Your task to perform on an android device: Search for seafood restaurants on Google Maps Image 0: 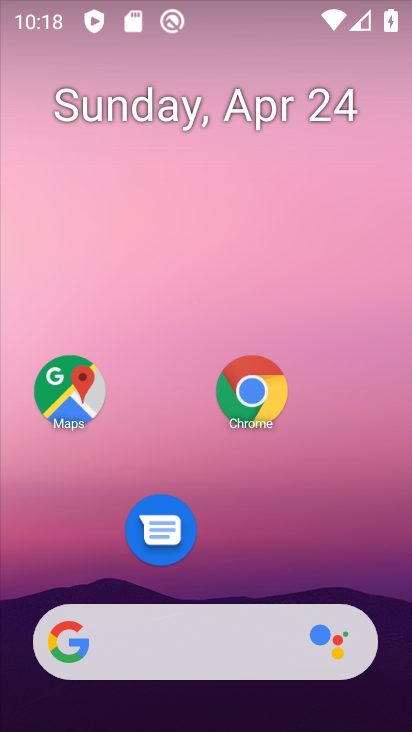
Step 0: click (74, 396)
Your task to perform on an android device: Search for seafood restaurants on Google Maps Image 1: 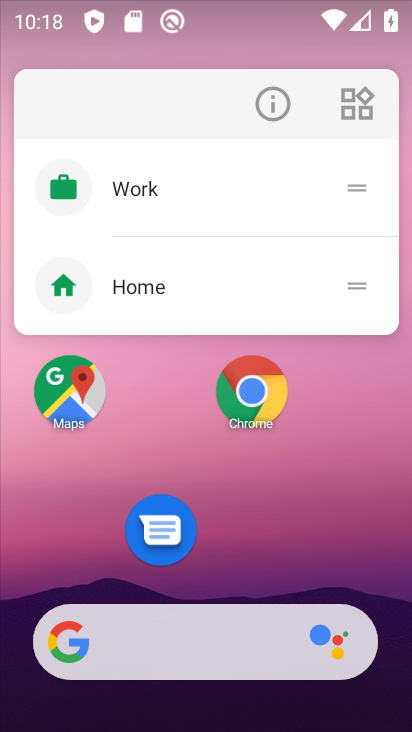
Step 1: click (74, 396)
Your task to perform on an android device: Search for seafood restaurants on Google Maps Image 2: 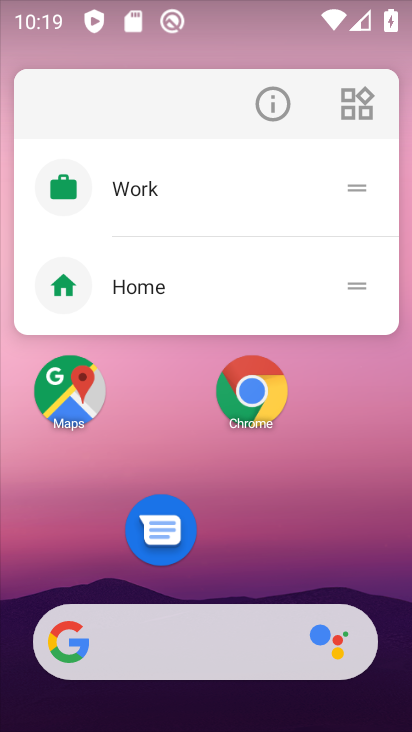
Step 2: click (64, 409)
Your task to perform on an android device: Search for seafood restaurants on Google Maps Image 3: 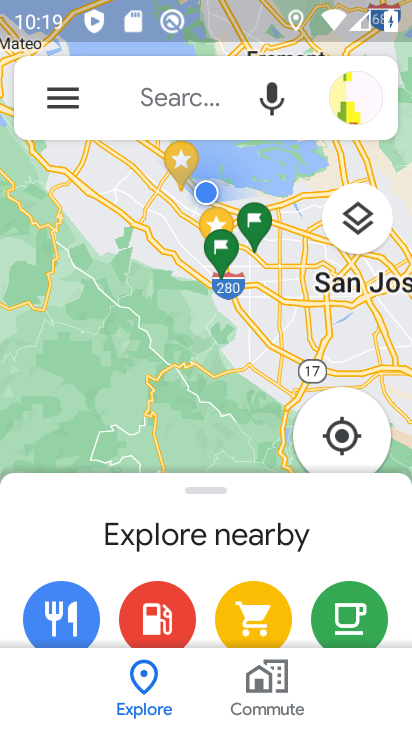
Step 3: click (152, 96)
Your task to perform on an android device: Search for seafood restaurants on Google Maps Image 4: 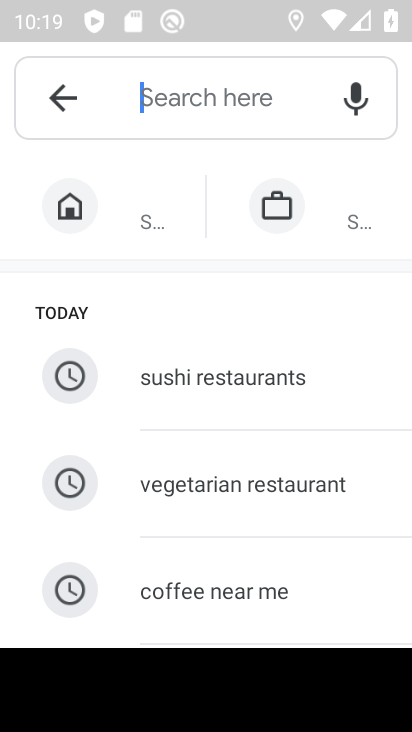
Step 4: type "seafood restaurant"
Your task to perform on an android device: Search for seafood restaurants on Google Maps Image 5: 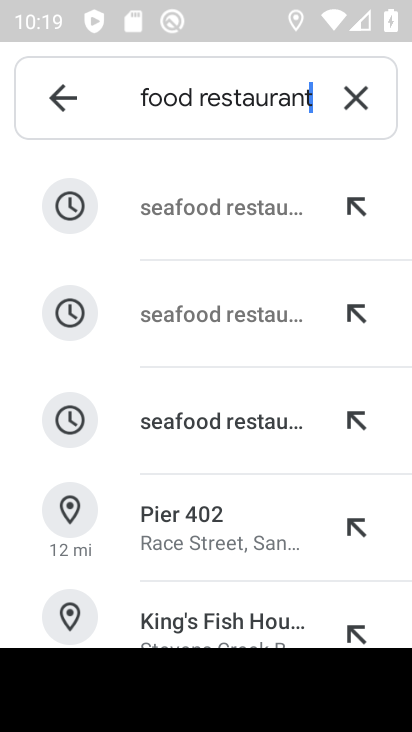
Step 5: click (234, 242)
Your task to perform on an android device: Search for seafood restaurants on Google Maps Image 6: 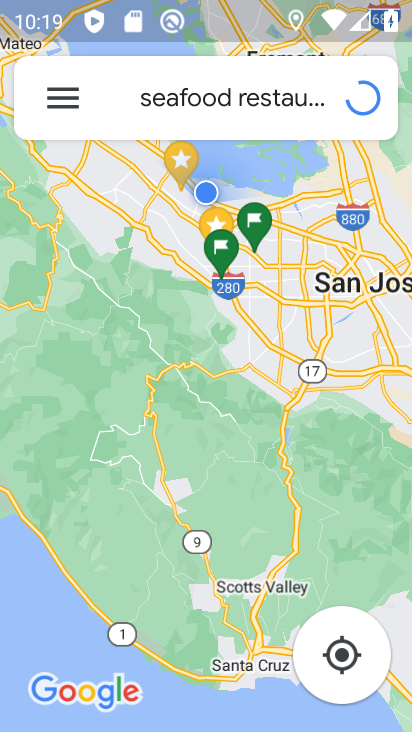
Step 6: task complete